Your task to perform on an android device: refresh tabs in the chrome app Image 0: 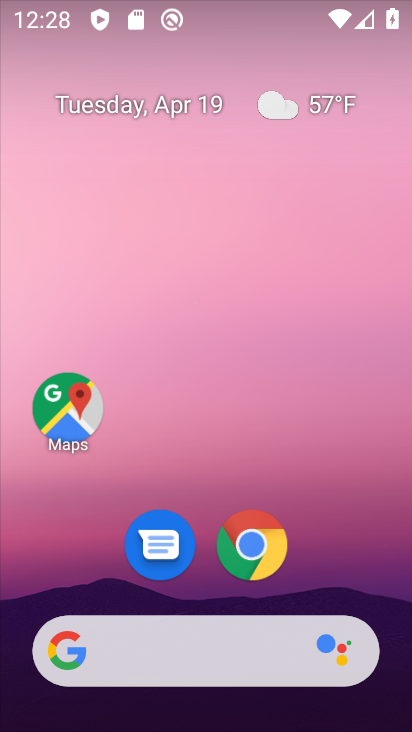
Step 0: click (254, 562)
Your task to perform on an android device: refresh tabs in the chrome app Image 1: 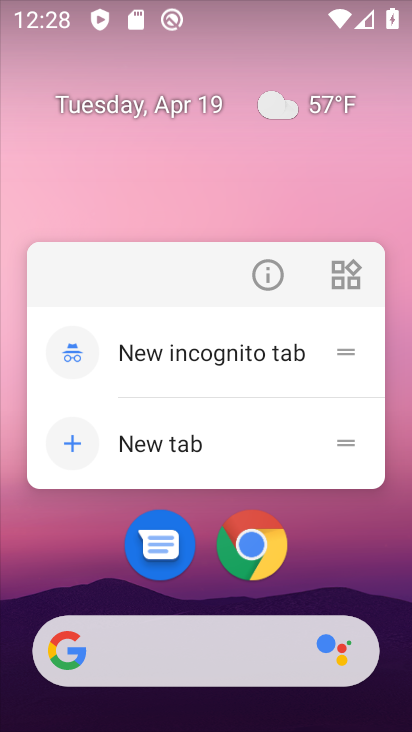
Step 1: click (246, 553)
Your task to perform on an android device: refresh tabs in the chrome app Image 2: 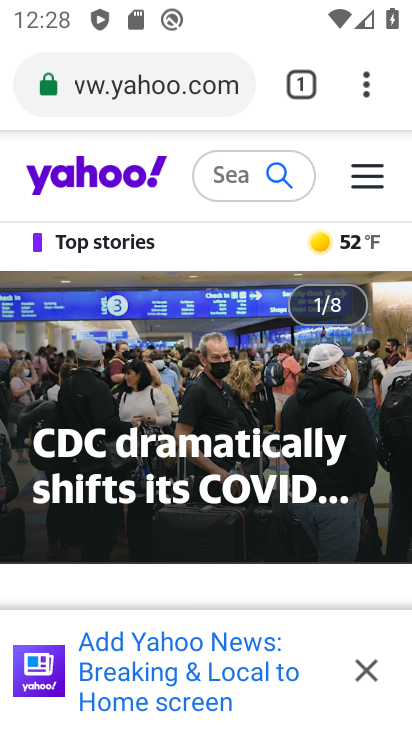
Step 2: click (365, 94)
Your task to perform on an android device: refresh tabs in the chrome app Image 3: 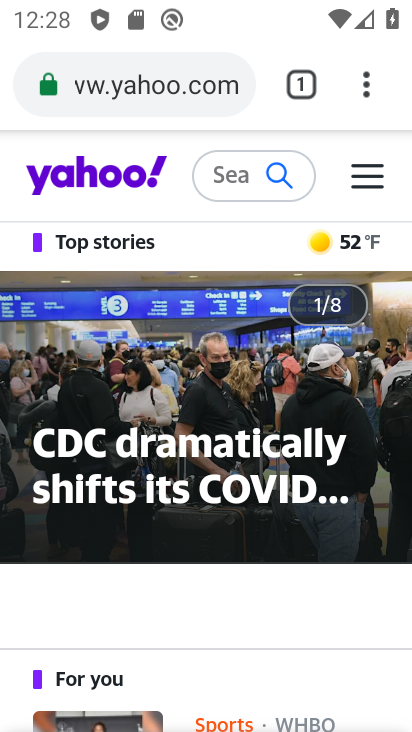
Step 3: task complete